Your task to perform on an android device: Open Maps and search for coffee Image 0: 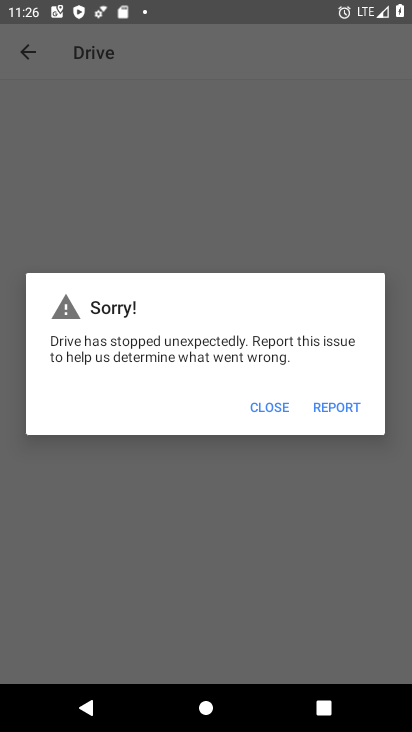
Step 0: press home button
Your task to perform on an android device: Open Maps and search for coffee Image 1: 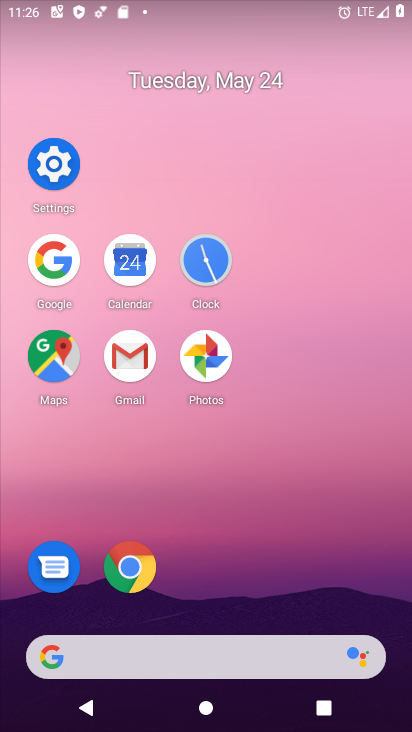
Step 1: click (60, 351)
Your task to perform on an android device: Open Maps and search for coffee Image 2: 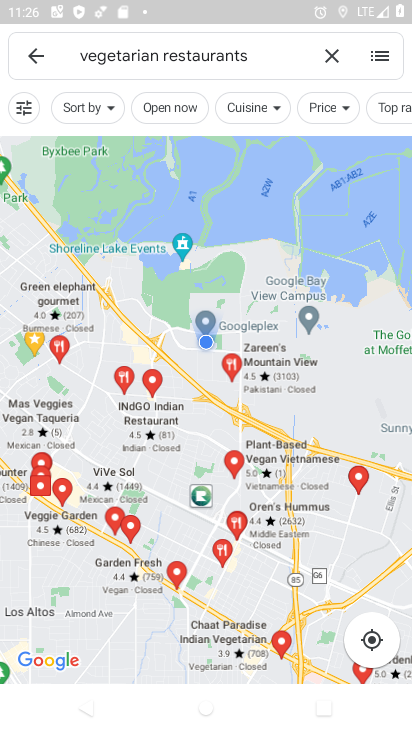
Step 2: click (334, 49)
Your task to perform on an android device: Open Maps and search for coffee Image 3: 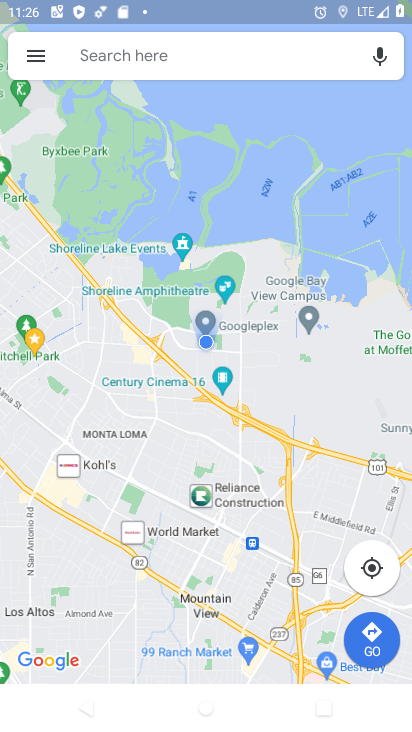
Step 3: click (226, 53)
Your task to perform on an android device: Open Maps and search for coffee Image 4: 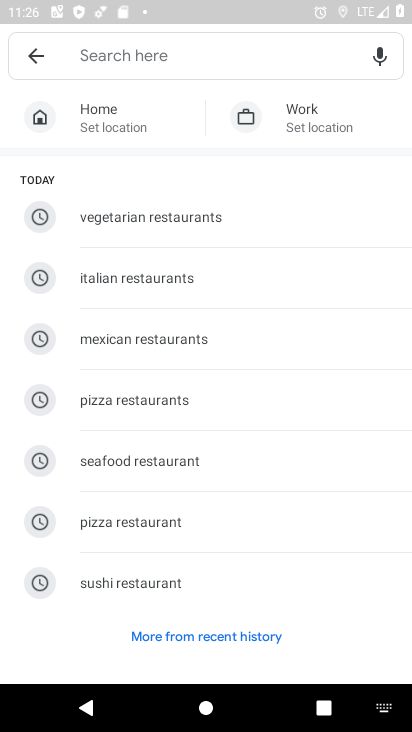
Step 4: type "coffee"
Your task to perform on an android device: Open Maps and search for coffee Image 5: 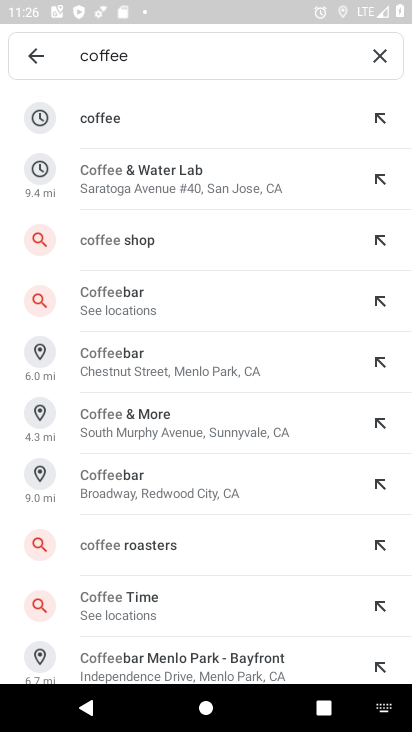
Step 5: task complete